Your task to perform on an android device: What is the news today? Image 0: 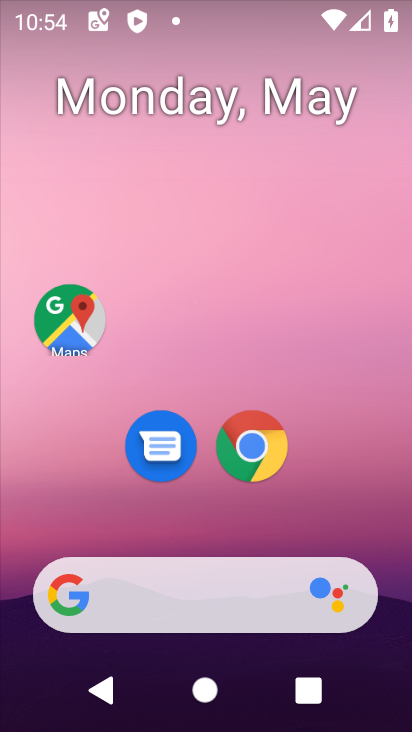
Step 0: drag from (336, 514) to (294, 29)
Your task to perform on an android device: What is the news today? Image 1: 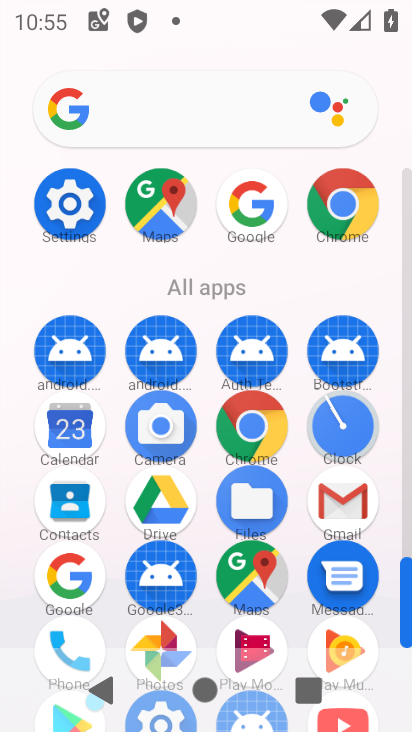
Step 1: click (342, 211)
Your task to perform on an android device: What is the news today? Image 2: 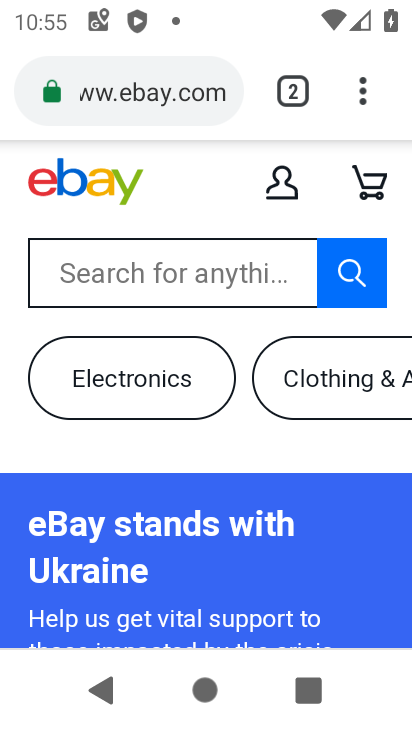
Step 2: task complete